Your task to perform on an android device: turn off location history Image 0: 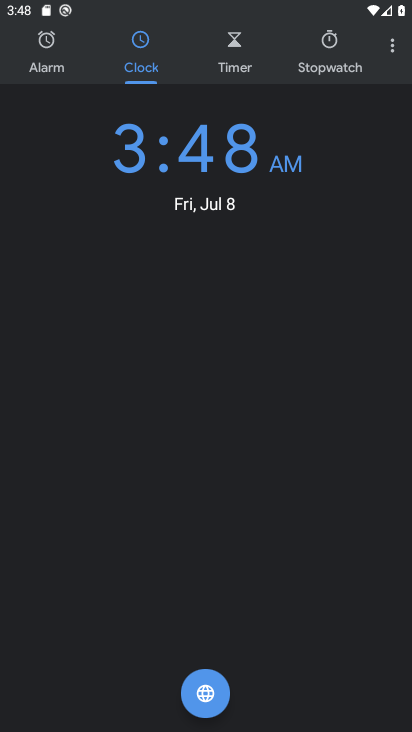
Step 0: press home button
Your task to perform on an android device: turn off location history Image 1: 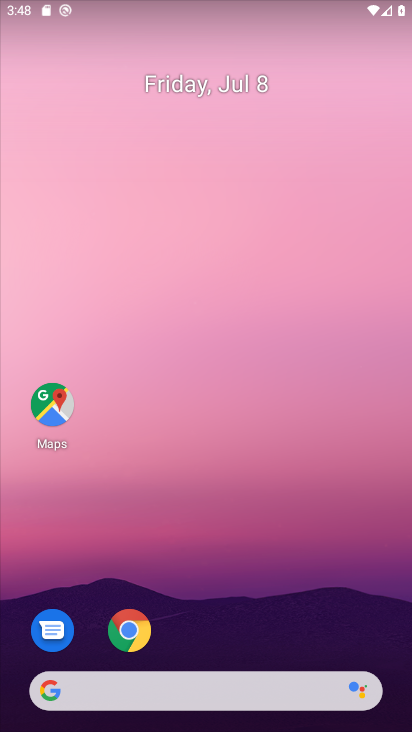
Step 1: drag from (329, 551) to (406, 103)
Your task to perform on an android device: turn off location history Image 2: 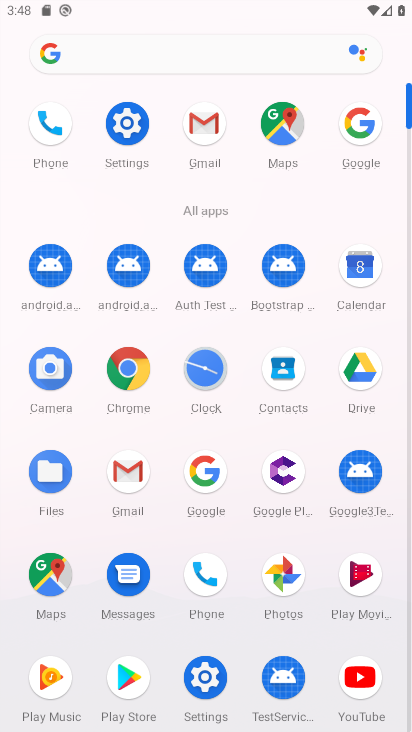
Step 2: click (128, 122)
Your task to perform on an android device: turn off location history Image 3: 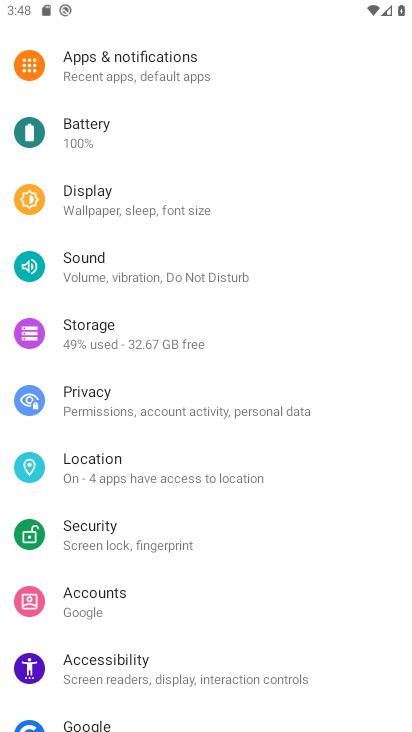
Step 3: click (132, 458)
Your task to perform on an android device: turn off location history Image 4: 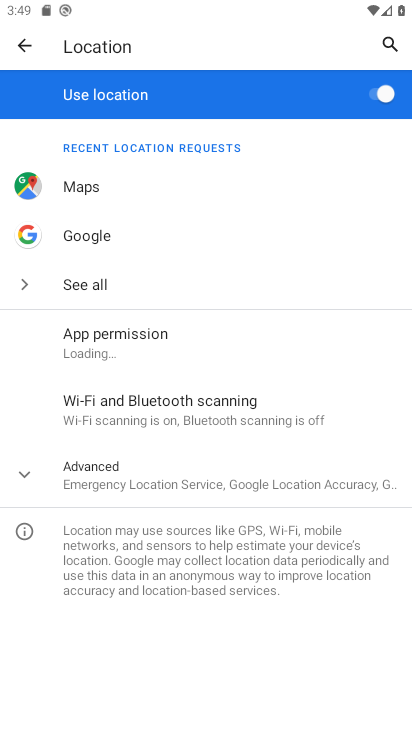
Step 4: click (136, 474)
Your task to perform on an android device: turn off location history Image 5: 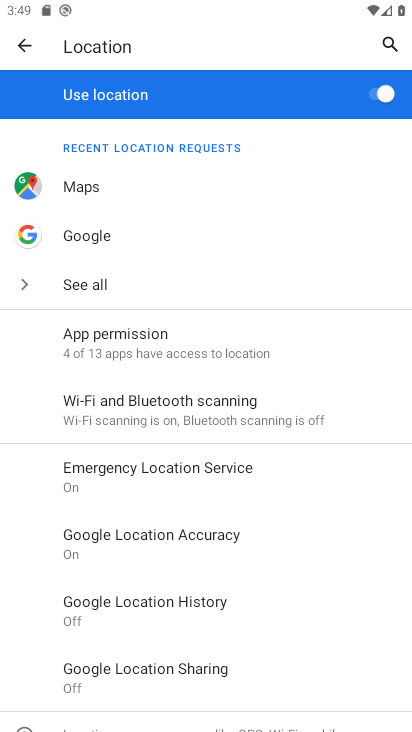
Step 5: click (156, 598)
Your task to perform on an android device: turn off location history Image 6: 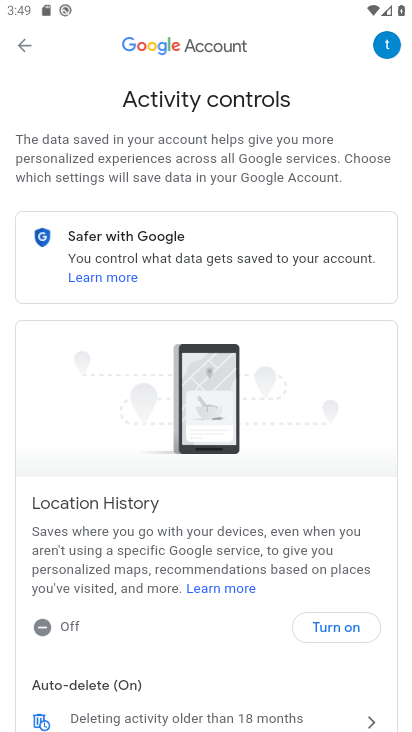
Step 6: task complete